Your task to perform on an android device: change notifications settings Image 0: 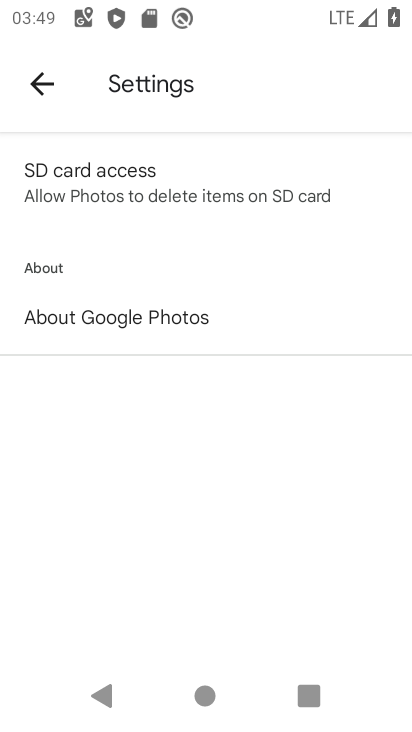
Step 0: press home button
Your task to perform on an android device: change notifications settings Image 1: 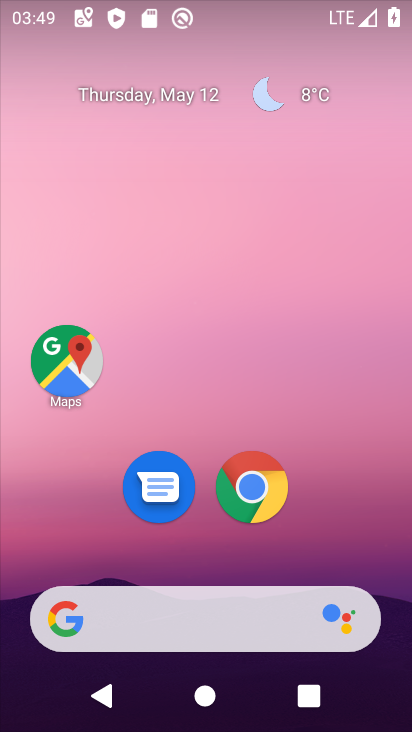
Step 1: drag from (346, 508) to (279, 47)
Your task to perform on an android device: change notifications settings Image 2: 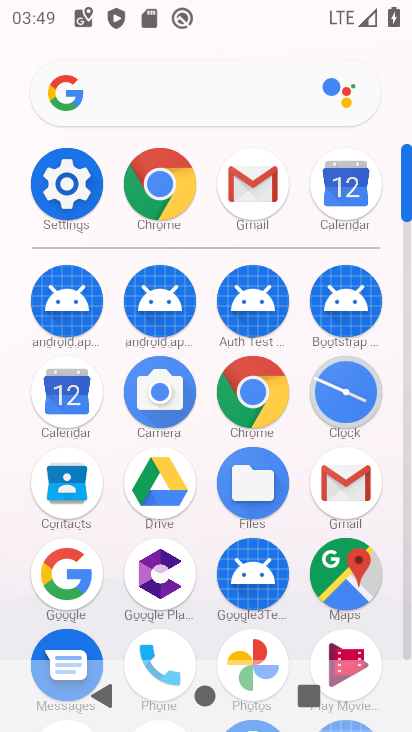
Step 2: click (67, 203)
Your task to perform on an android device: change notifications settings Image 3: 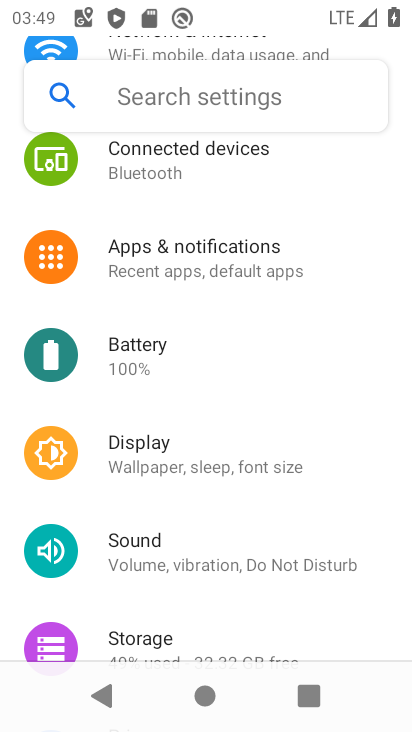
Step 3: drag from (286, 561) to (276, 295)
Your task to perform on an android device: change notifications settings Image 4: 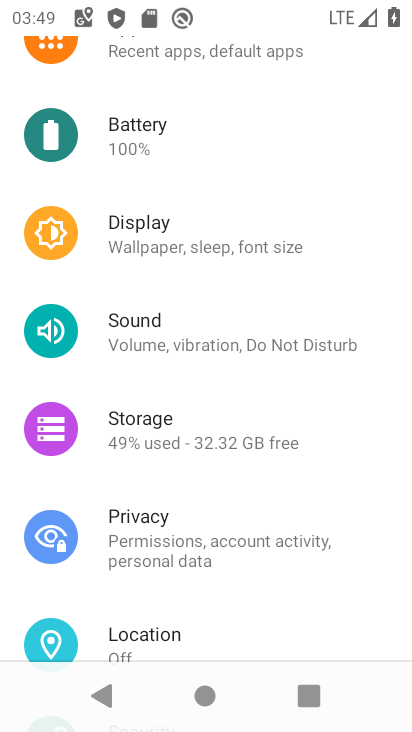
Step 4: drag from (176, 185) to (238, 555)
Your task to perform on an android device: change notifications settings Image 5: 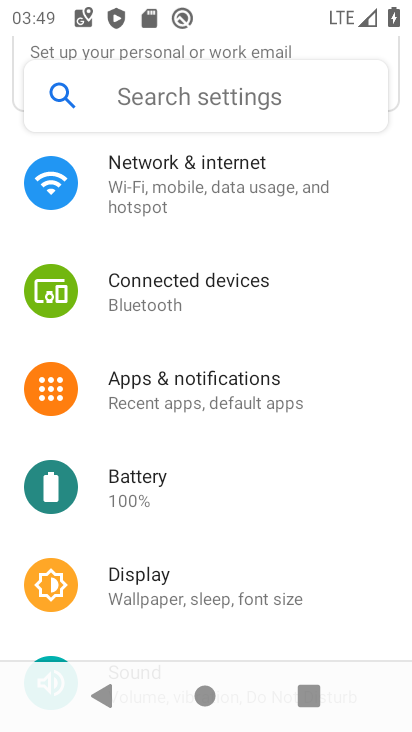
Step 5: click (199, 388)
Your task to perform on an android device: change notifications settings Image 6: 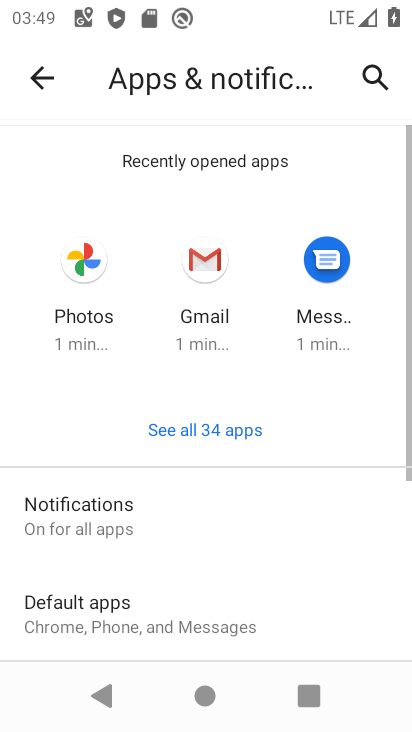
Step 6: drag from (256, 630) to (308, 299)
Your task to perform on an android device: change notifications settings Image 7: 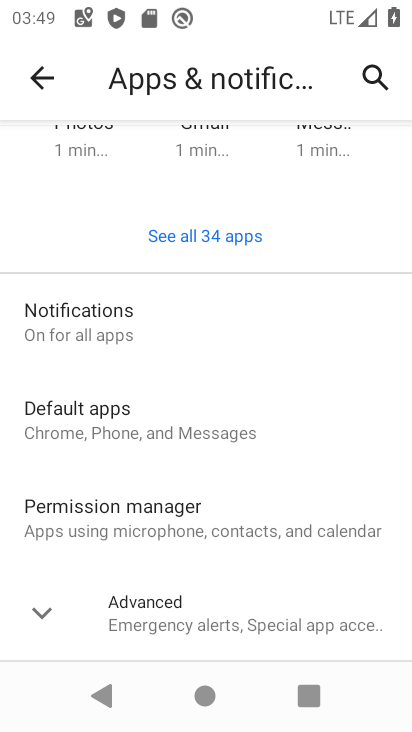
Step 7: click (102, 315)
Your task to perform on an android device: change notifications settings Image 8: 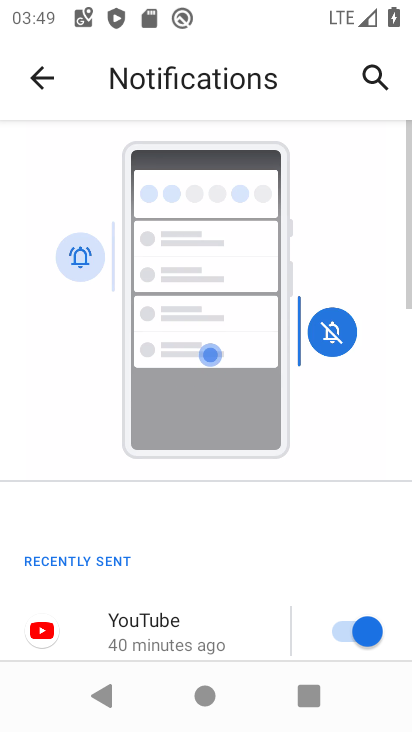
Step 8: drag from (268, 601) to (292, 126)
Your task to perform on an android device: change notifications settings Image 9: 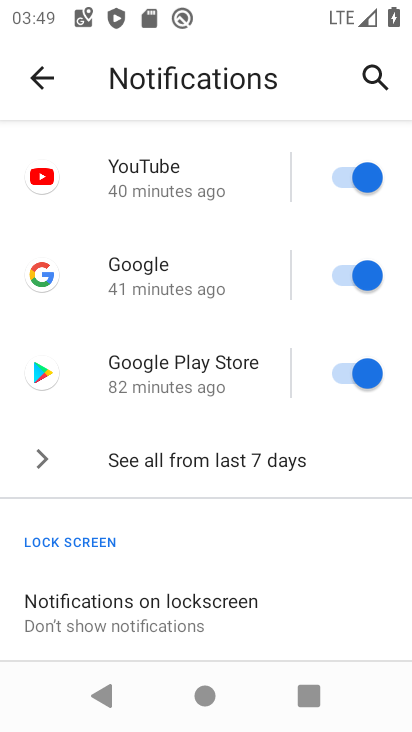
Step 9: drag from (144, 631) to (243, 213)
Your task to perform on an android device: change notifications settings Image 10: 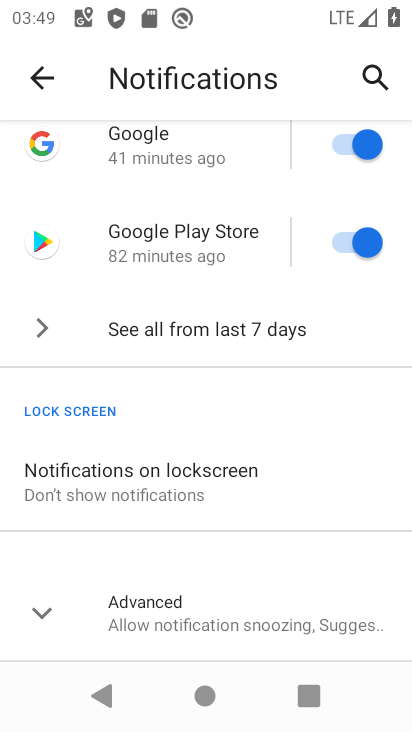
Step 10: click (128, 631)
Your task to perform on an android device: change notifications settings Image 11: 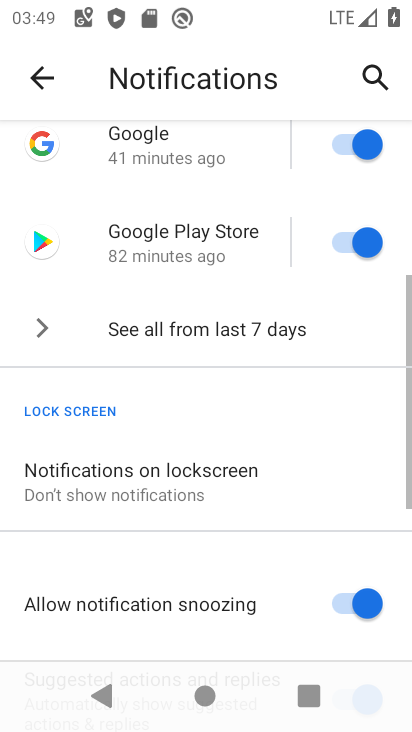
Step 11: drag from (190, 592) to (276, 227)
Your task to perform on an android device: change notifications settings Image 12: 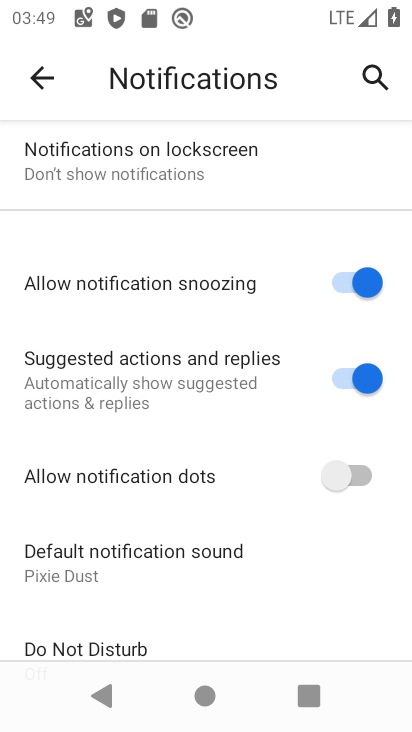
Step 12: drag from (200, 592) to (304, 219)
Your task to perform on an android device: change notifications settings Image 13: 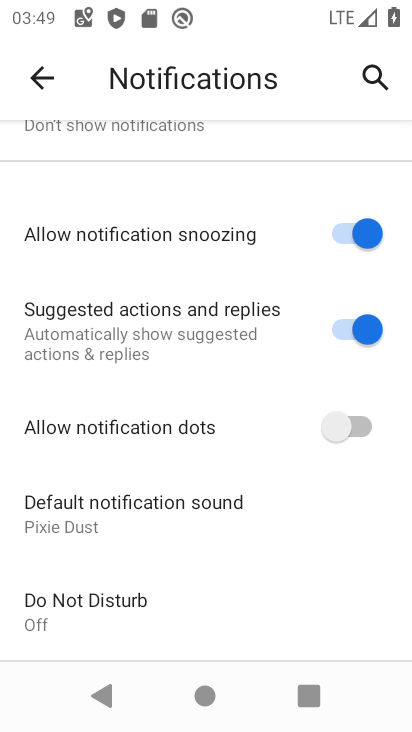
Step 13: drag from (198, 568) to (241, 326)
Your task to perform on an android device: change notifications settings Image 14: 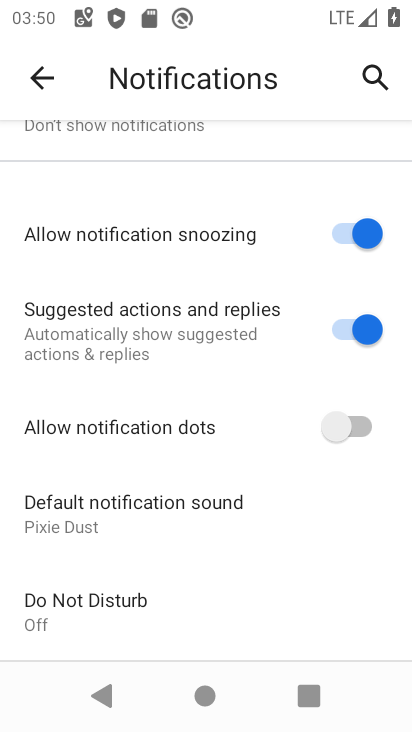
Step 14: drag from (200, 341) to (227, 719)
Your task to perform on an android device: change notifications settings Image 15: 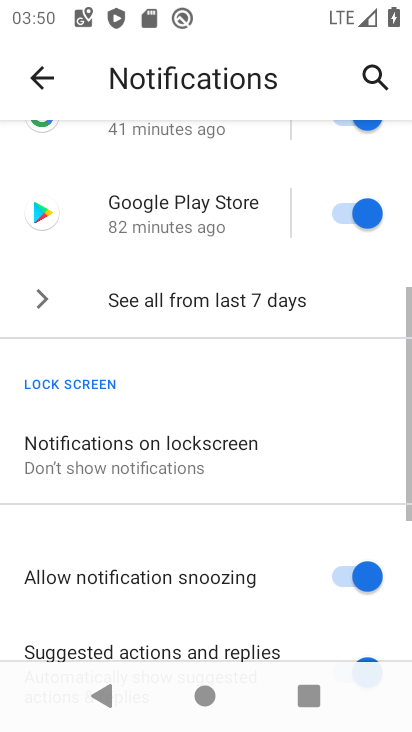
Step 15: drag from (247, 336) to (247, 731)
Your task to perform on an android device: change notifications settings Image 16: 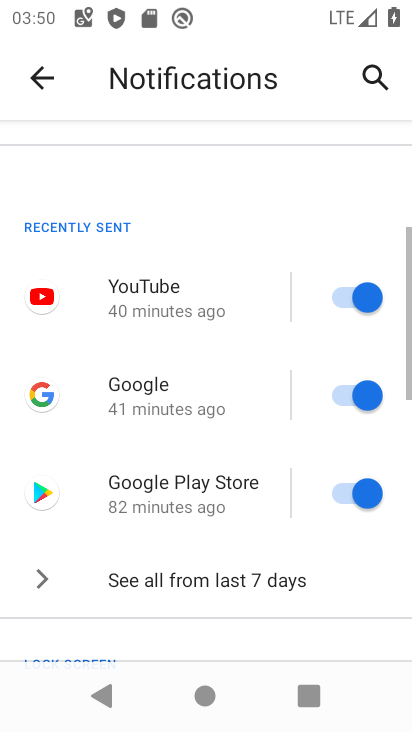
Step 16: drag from (244, 684) to (283, 354)
Your task to perform on an android device: change notifications settings Image 17: 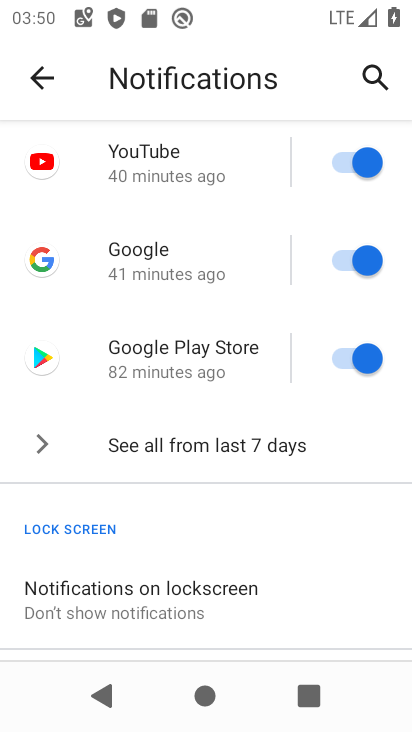
Step 17: drag from (258, 578) to (259, 259)
Your task to perform on an android device: change notifications settings Image 18: 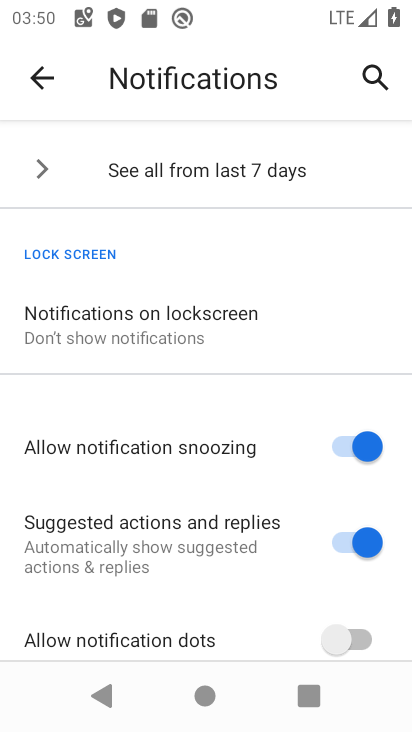
Step 18: drag from (202, 548) to (266, 216)
Your task to perform on an android device: change notifications settings Image 19: 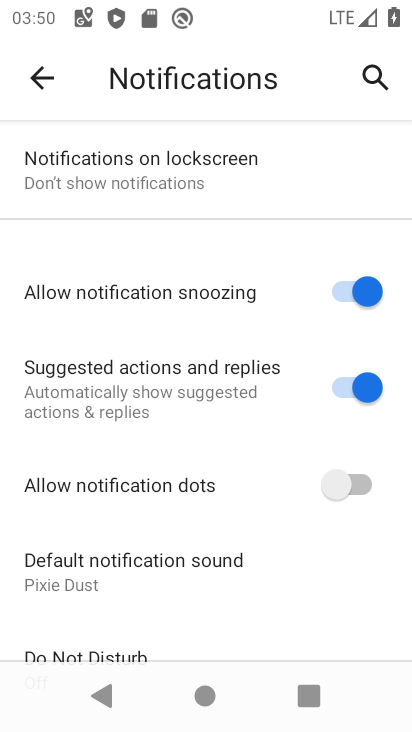
Step 19: click (361, 482)
Your task to perform on an android device: change notifications settings Image 20: 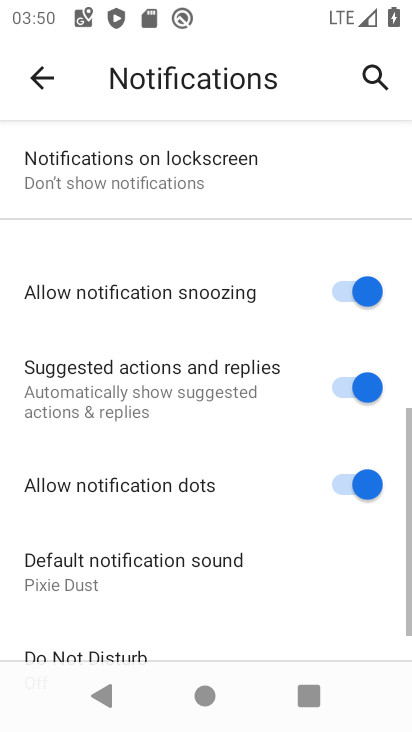
Step 20: task complete